Your task to perform on an android device: Go to Reddit.com Image 0: 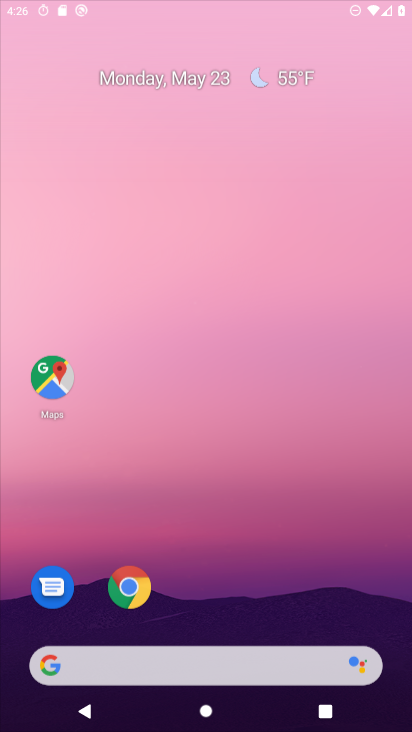
Step 0: click (295, 70)
Your task to perform on an android device: Go to Reddit.com Image 1: 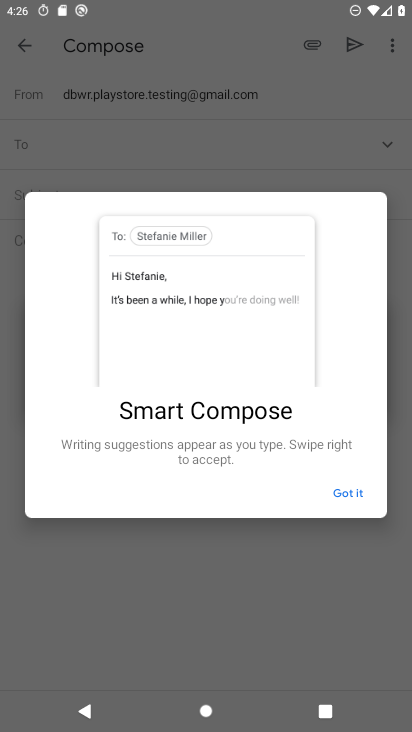
Step 1: press home button
Your task to perform on an android device: Go to Reddit.com Image 2: 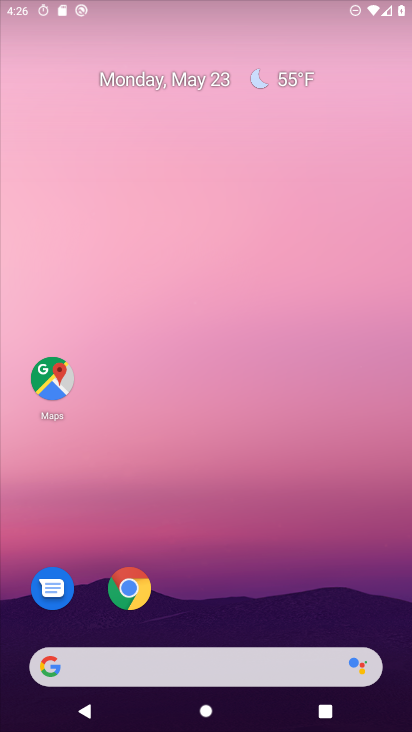
Step 2: drag from (235, 596) to (293, 69)
Your task to perform on an android device: Go to Reddit.com Image 3: 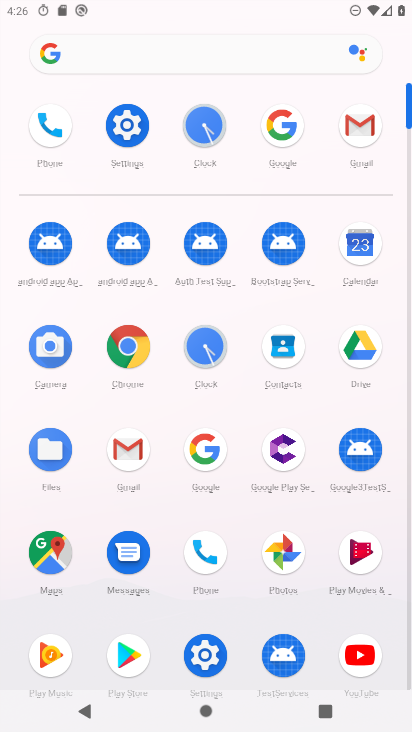
Step 3: click (219, 449)
Your task to perform on an android device: Go to Reddit.com Image 4: 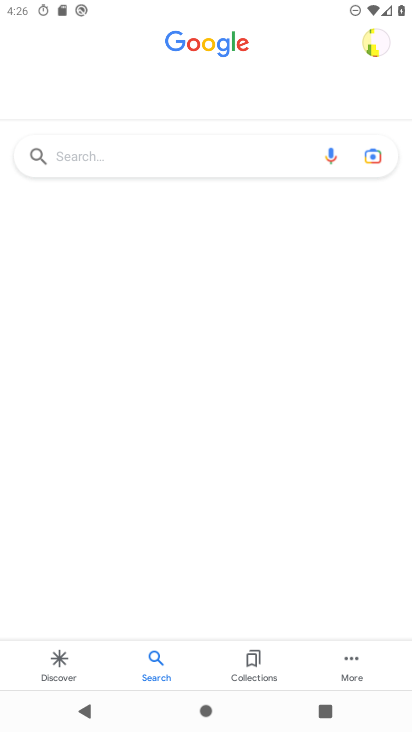
Step 4: click (148, 167)
Your task to perform on an android device: Go to Reddit.com Image 5: 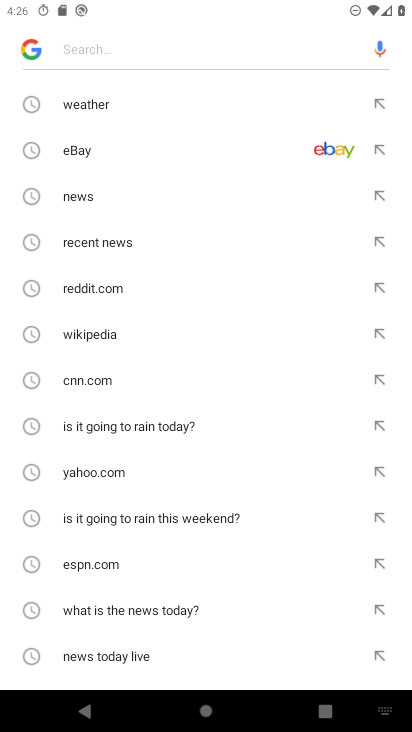
Step 5: drag from (194, 561) to (190, 113)
Your task to perform on an android device: Go to Reddit.com Image 6: 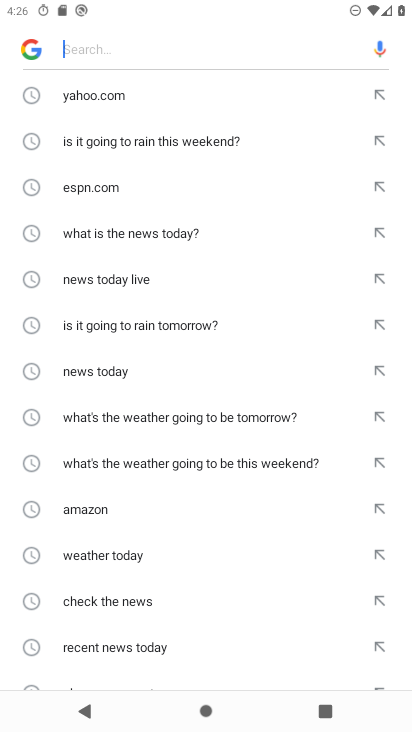
Step 6: drag from (205, 649) to (213, 256)
Your task to perform on an android device: Go to Reddit.com Image 7: 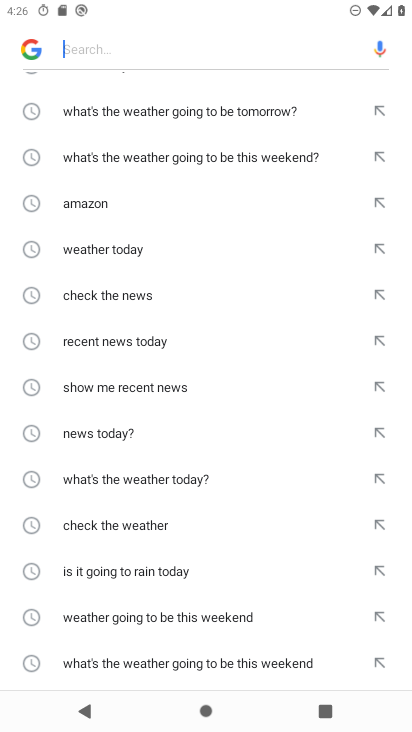
Step 7: type "reddit.com"
Your task to perform on an android device: Go to Reddit.com Image 8: 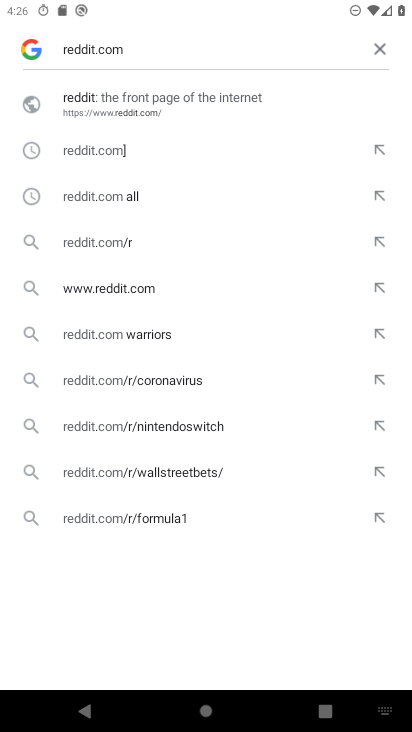
Step 8: click (160, 104)
Your task to perform on an android device: Go to Reddit.com Image 9: 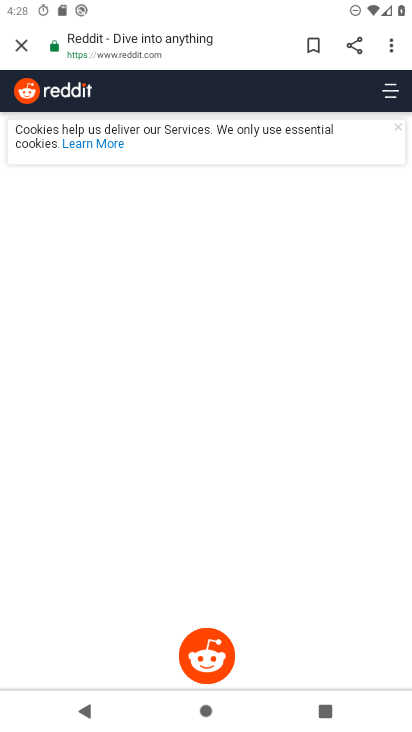
Step 9: task complete